Your task to perform on an android device: Go to Amazon Image 0: 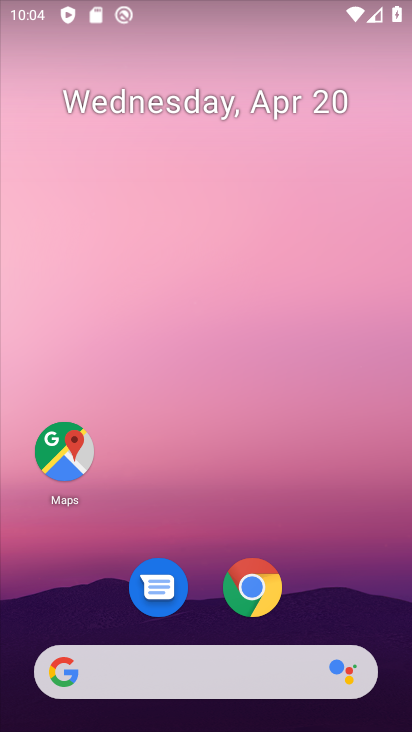
Step 0: drag from (310, 492) to (259, 233)
Your task to perform on an android device: Go to Amazon Image 1: 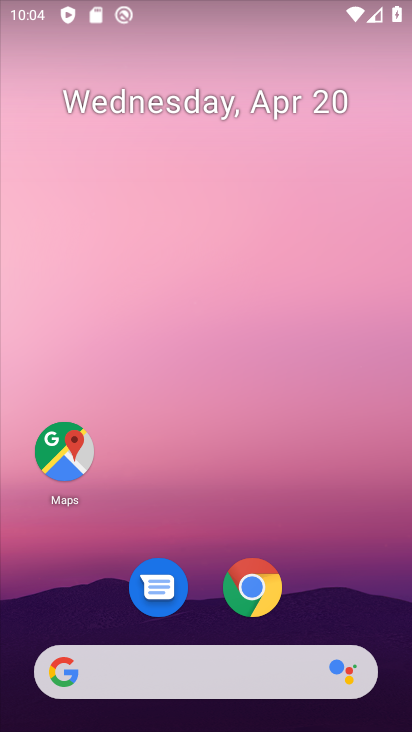
Step 1: click (263, 585)
Your task to perform on an android device: Go to Amazon Image 2: 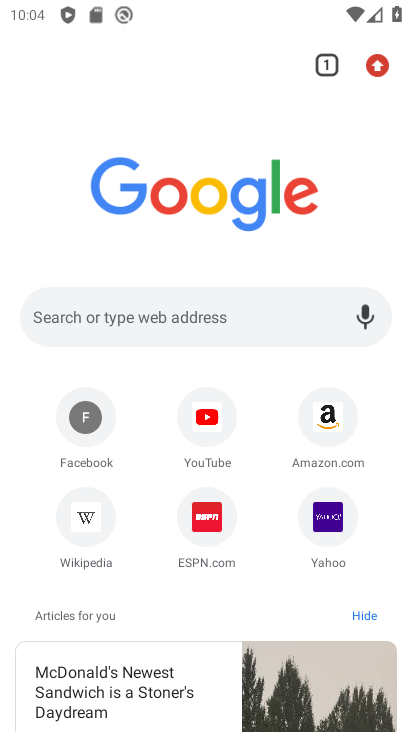
Step 2: click (322, 425)
Your task to perform on an android device: Go to Amazon Image 3: 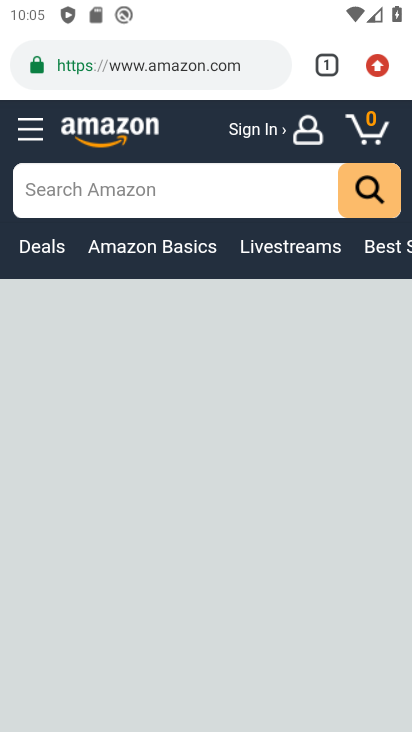
Step 3: task complete